Your task to perform on an android device: change alarm snooze length Image 0: 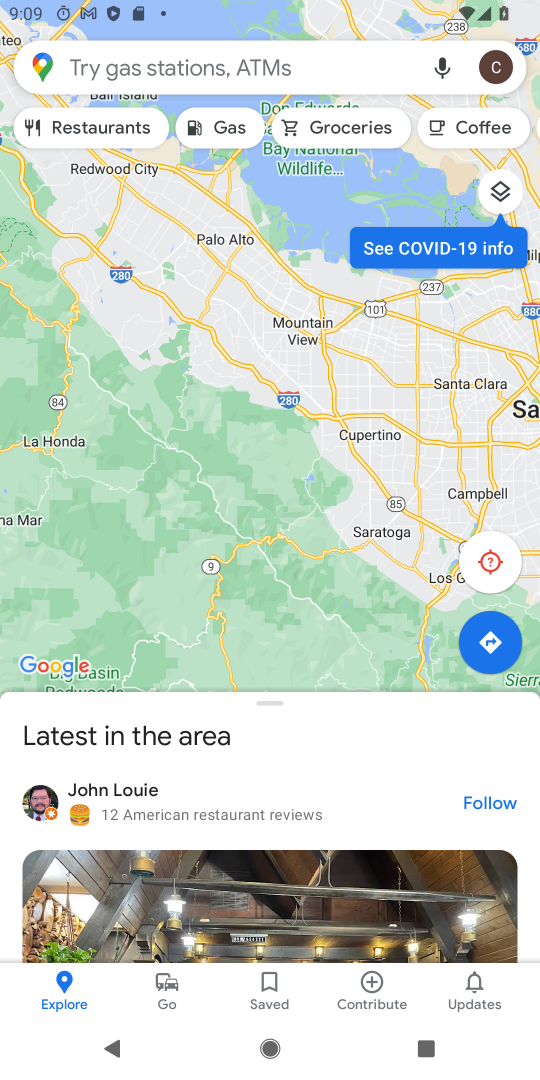
Step 0: press home button
Your task to perform on an android device: change alarm snooze length Image 1: 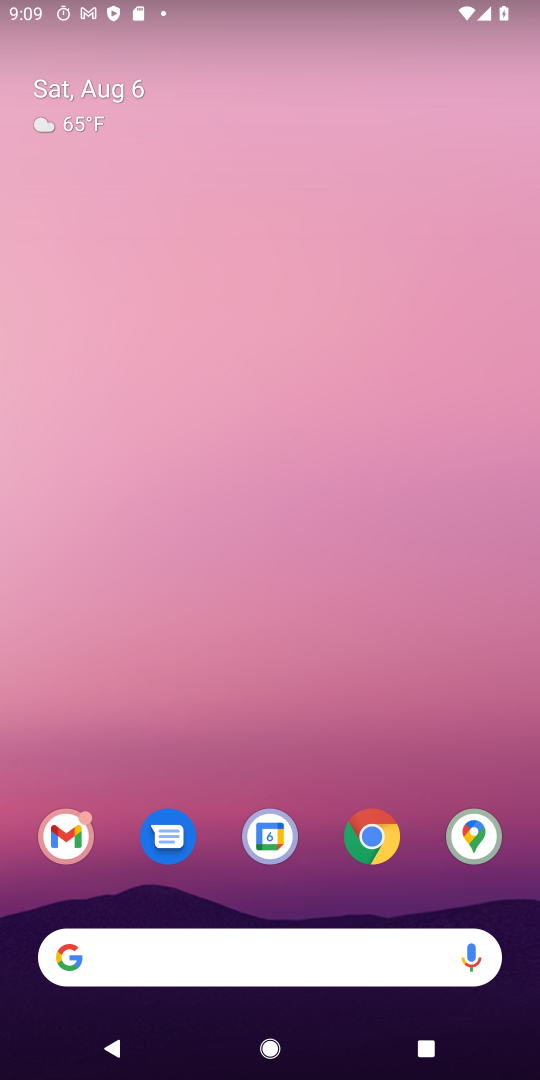
Step 1: drag from (468, 912) to (241, 19)
Your task to perform on an android device: change alarm snooze length Image 2: 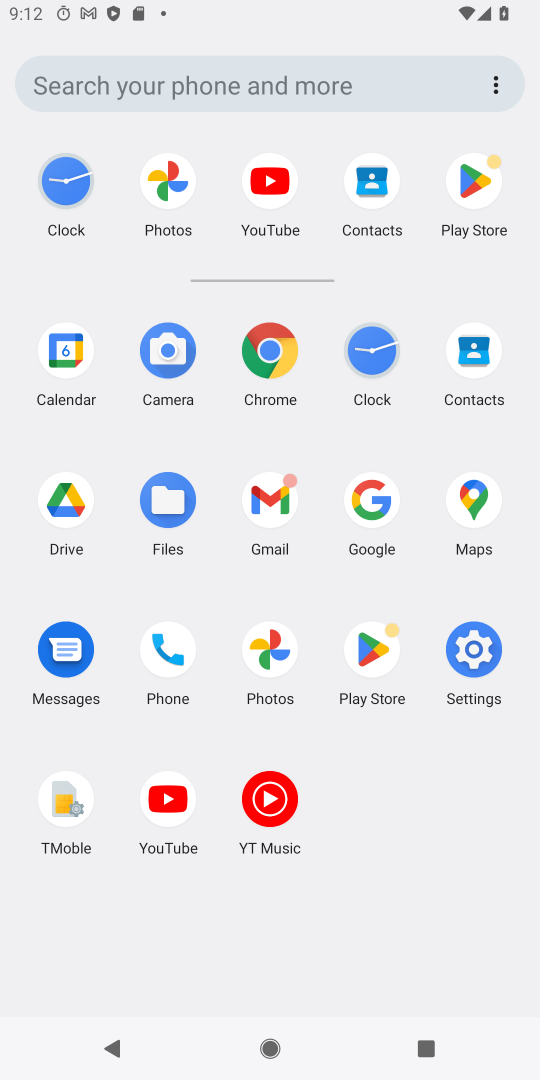
Step 2: click (368, 349)
Your task to perform on an android device: change alarm snooze length Image 3: 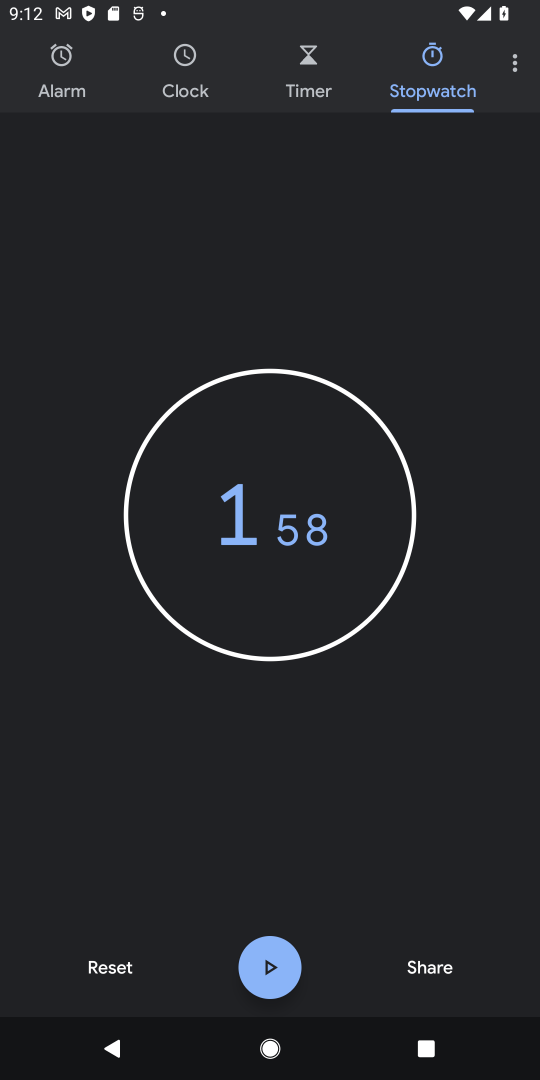
Step 3: click (514, 63)
Your task to perform on an android device: change alarm snooze length Image 4: 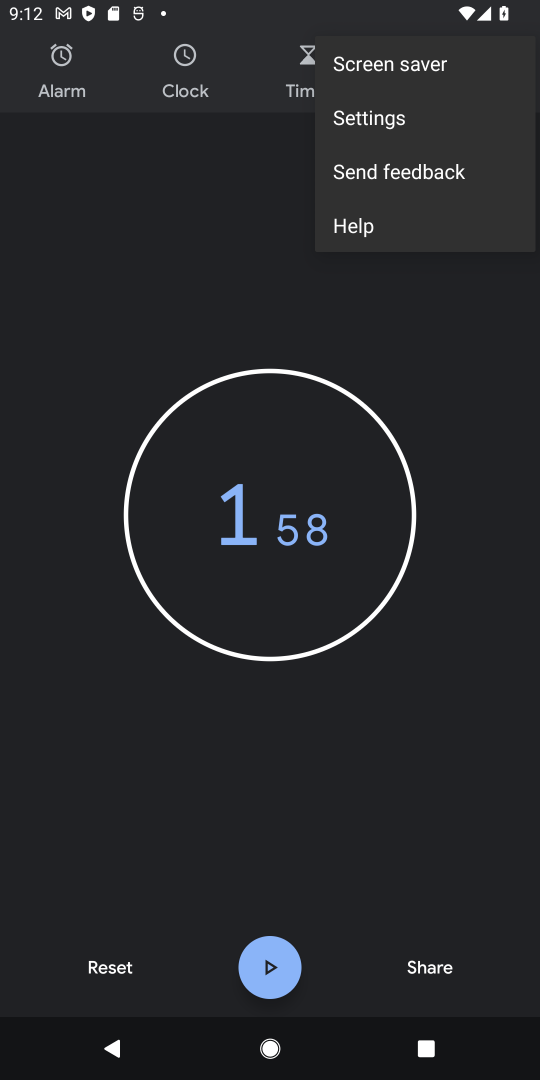
Step 4: click (400, 135)
Your task to perform on an android device: change alarm snooze length Image 5: 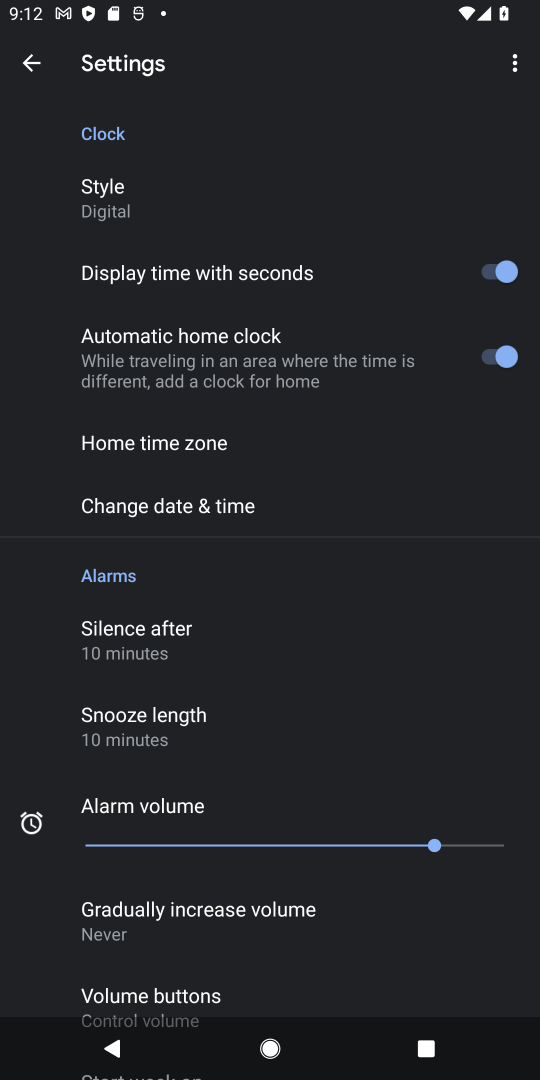
Step 5: click (166, 719)
Your task to perform on an android device: change alarm snooze length Image 6: 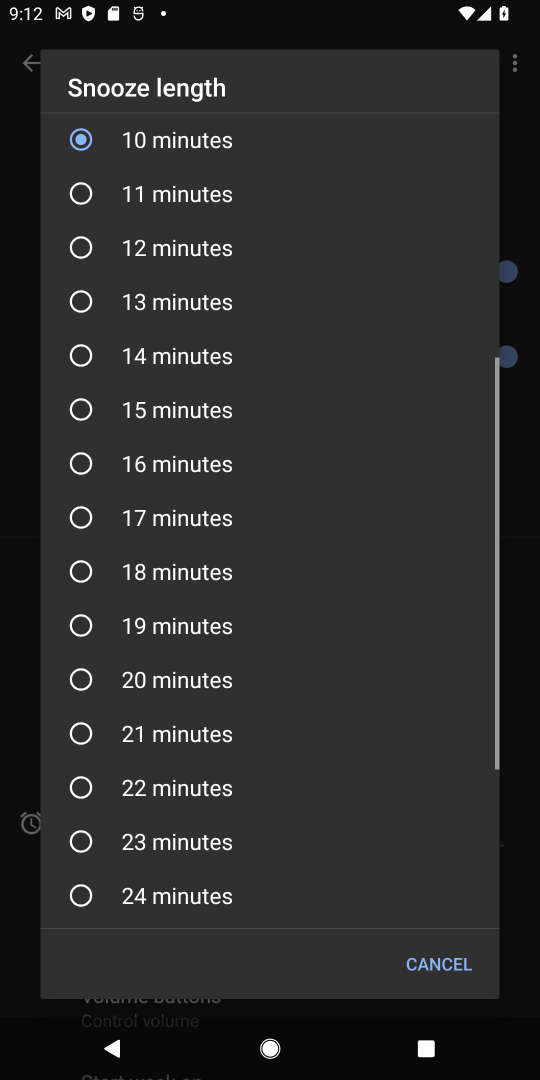
Step 6: click (166, 673)
Your task to perform on an android device: change alarm snooze length Image 7: 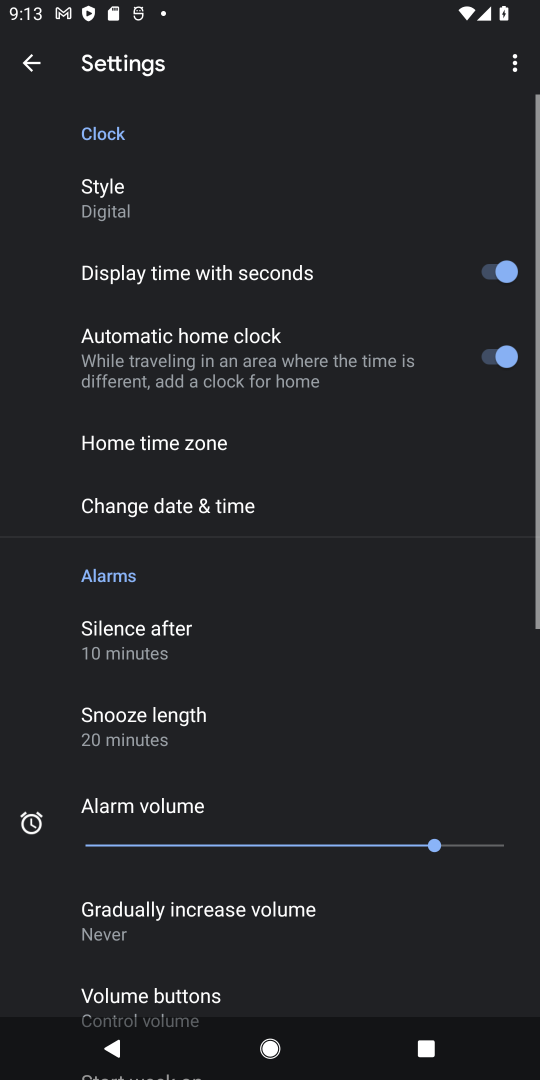
Step 7: task complete